Your task to perform on an android device: Find coffee shops on Maps Image 0: 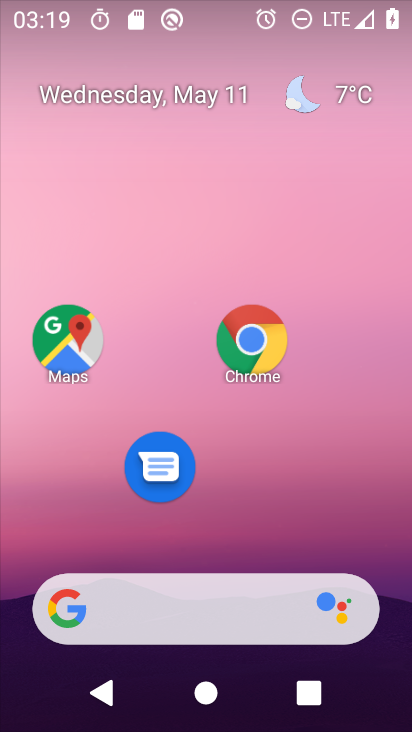
Step 0: click (80, 354)
Your task to perform on an android device: Find coffee shops on Maps Image 1: 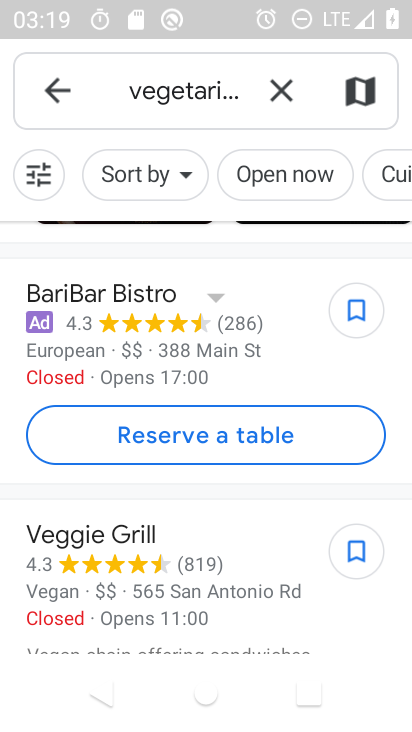
Step 1: click (272, 89)
Your task to perform on an android device: Find coffee shops on Maps Image 2: 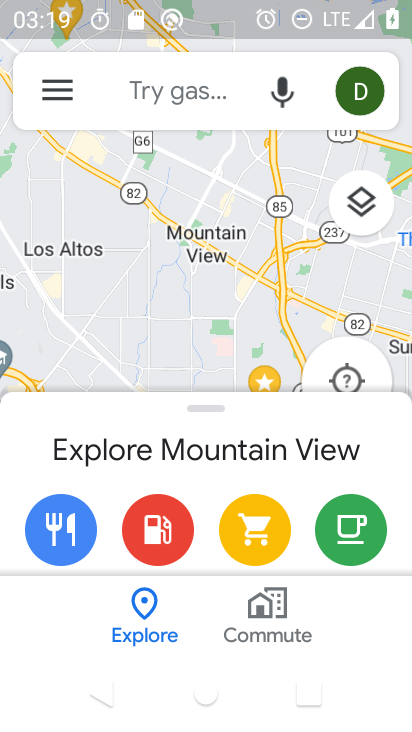
Step 2: click (140, 100)
Your task to perform on an android device: Find coffee shops on Maps Image 3: 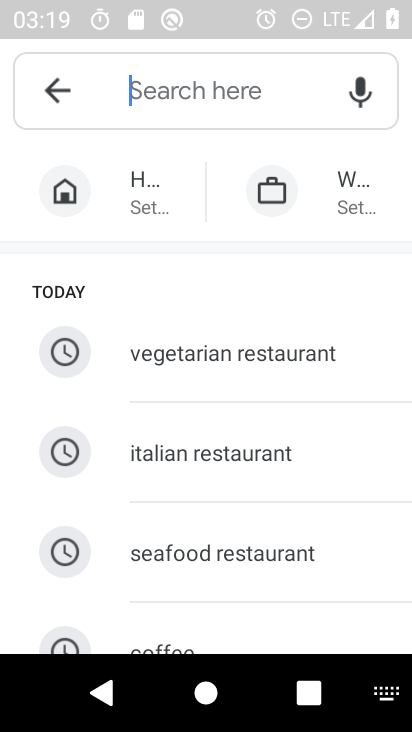
Step 3: drag from (163, 621) to (314, 282)
Your task to perform on an android device: Find coffee shops on Maps Image 4: 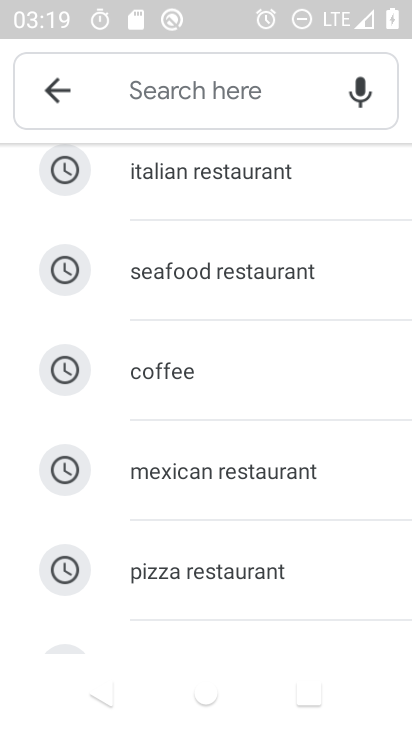
Step 4: click (175, 361)
Your task to perform on an android device: Find coffee shops on Maps Image 5: 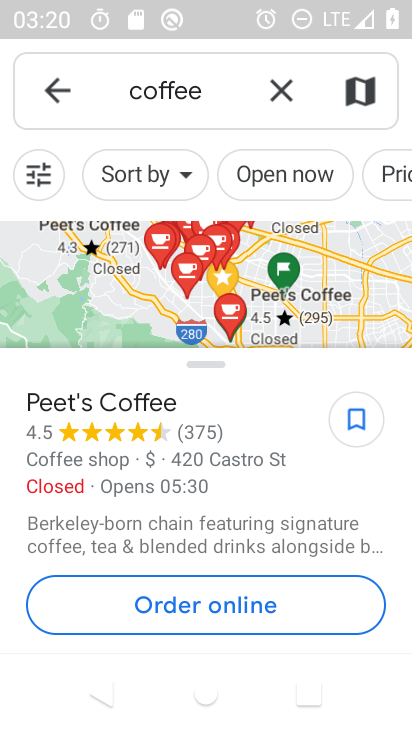
Step 5: task complete